Your task to perform on an android device: open sync settings in chrome Image 0: 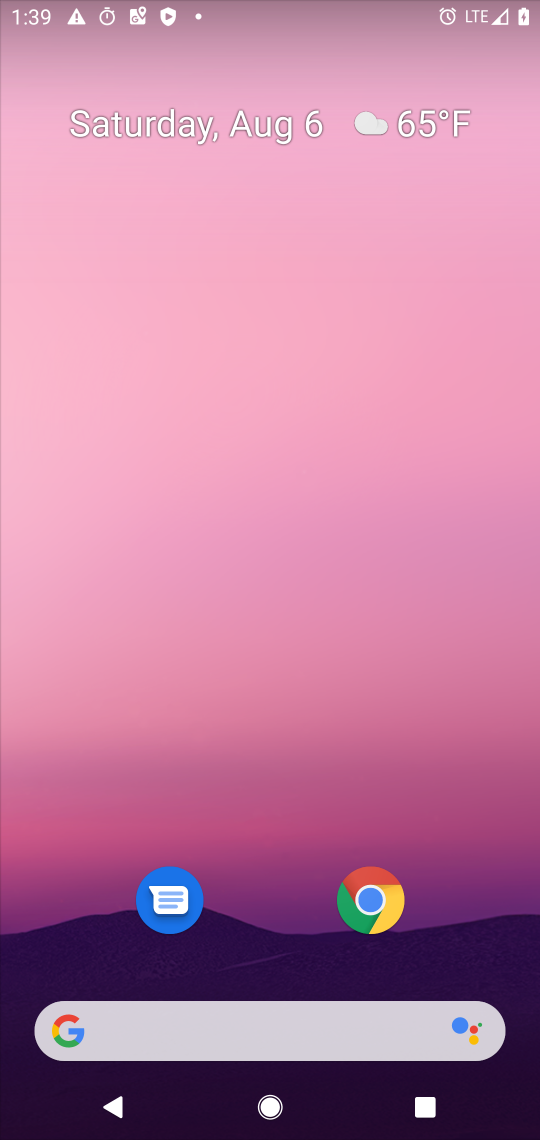
Step 0: click (372, 900)
Your task to perform on an android device: open sync settings in chrome Image 1: 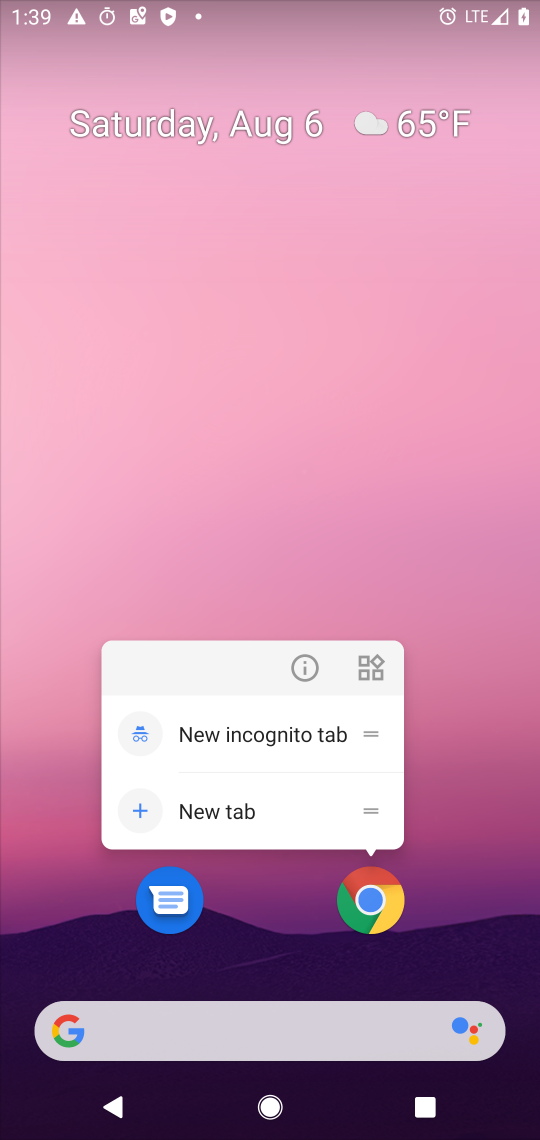
Step 1: click (370, 902)
Your task to perform on an android device: open sync settings in chrome Image 2: 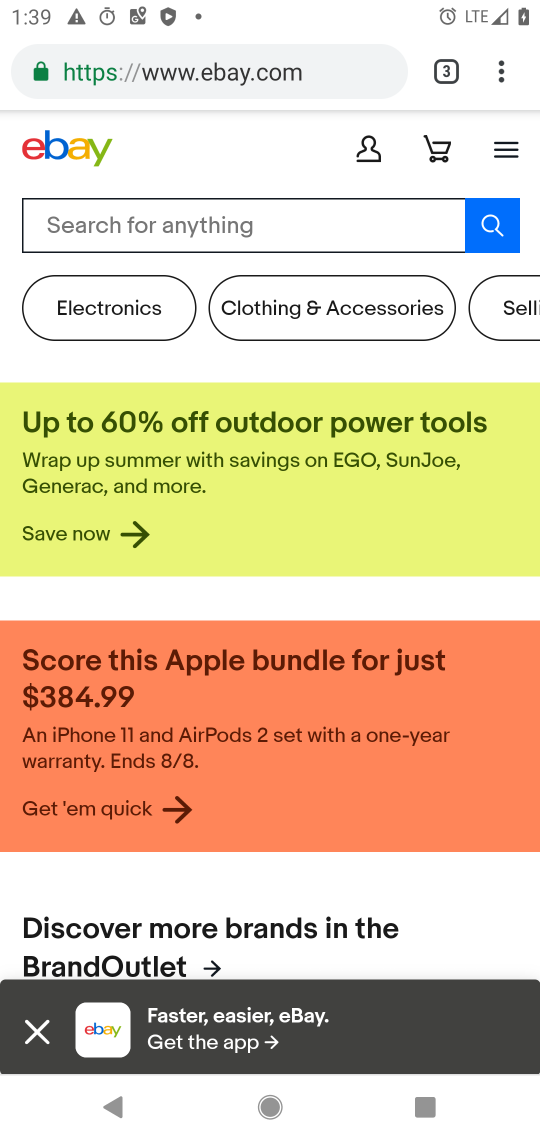
Step 2: click (497, 77)
Your task to perform on an android device: open sync settings in chrome Image 3: 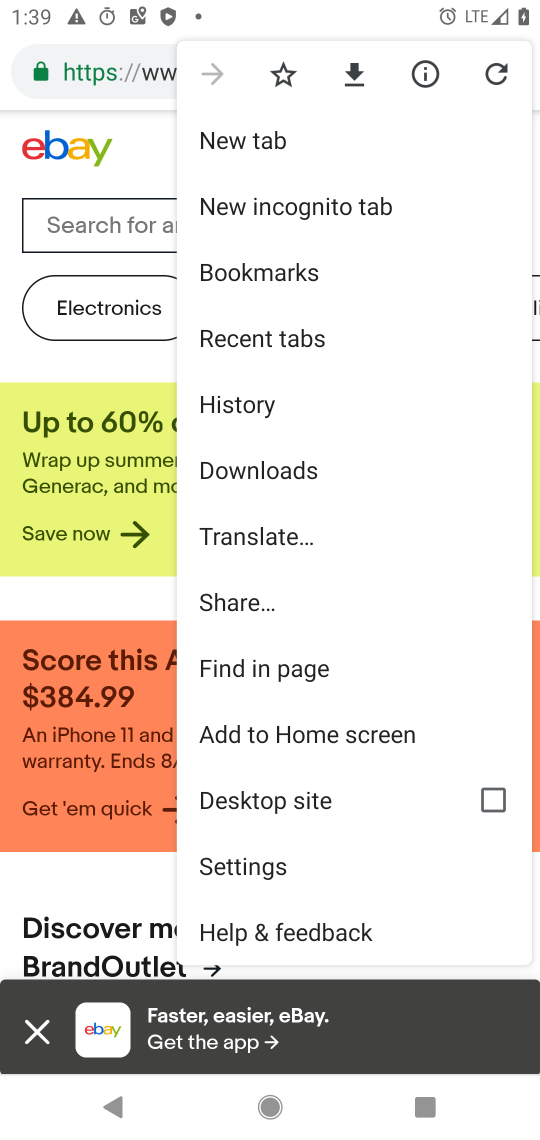
Step 3: click (252, 865)
Your task to perform on an android device: open sync settings in chrome Image 4: 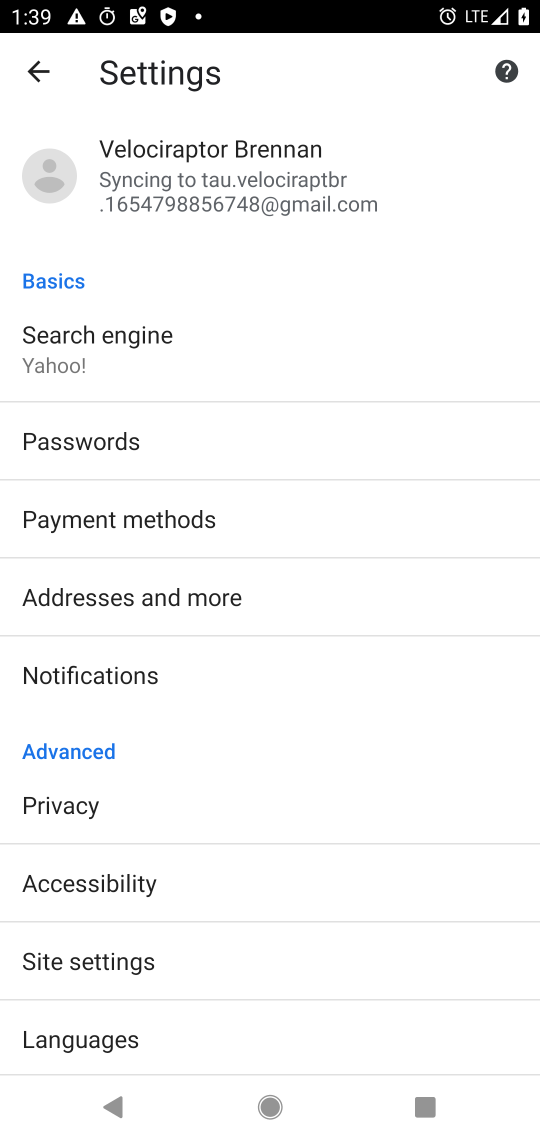
Step 4: click (81, 965)
Your task to perform on an android device: open sync settings in chrome Image 5: 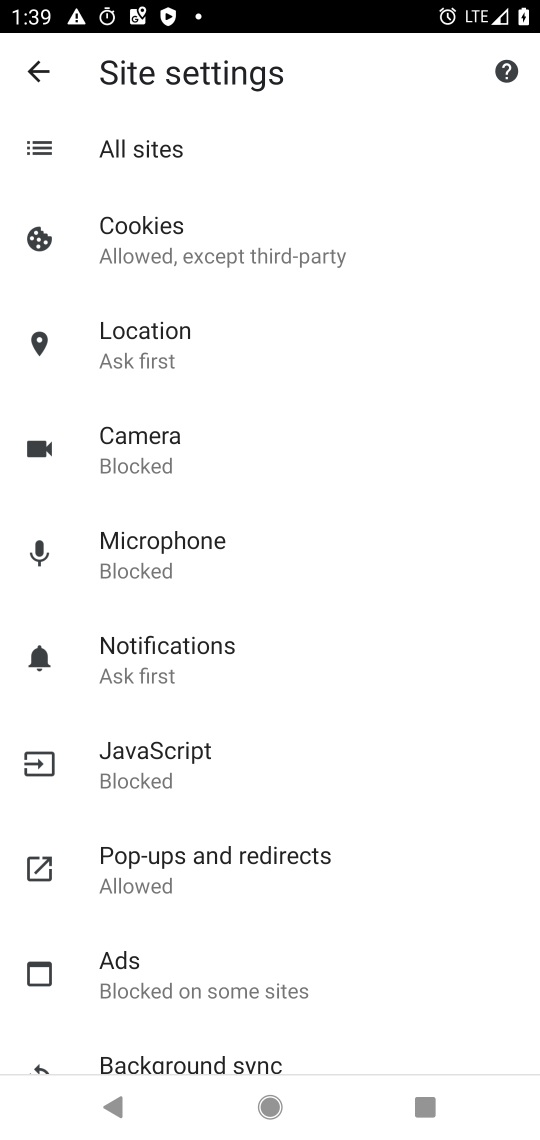
Step 5: click (196, 1057)
Your task to perform on an android device: open sync settings in chrome Image 6: 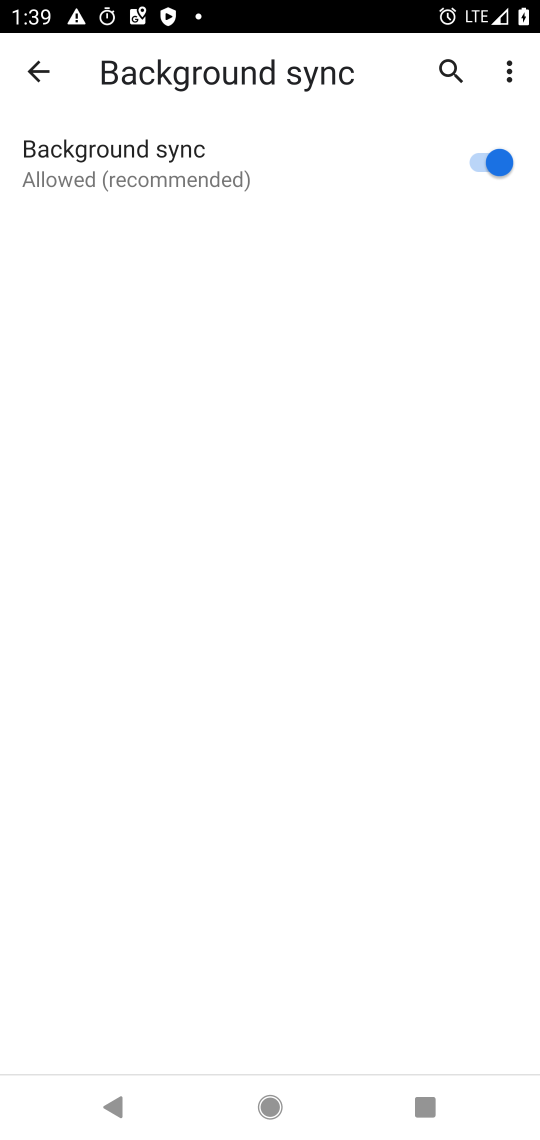
Step 6: click (476, 164)
Your task to perform on an android device: open sync settings in chrome Image 7: 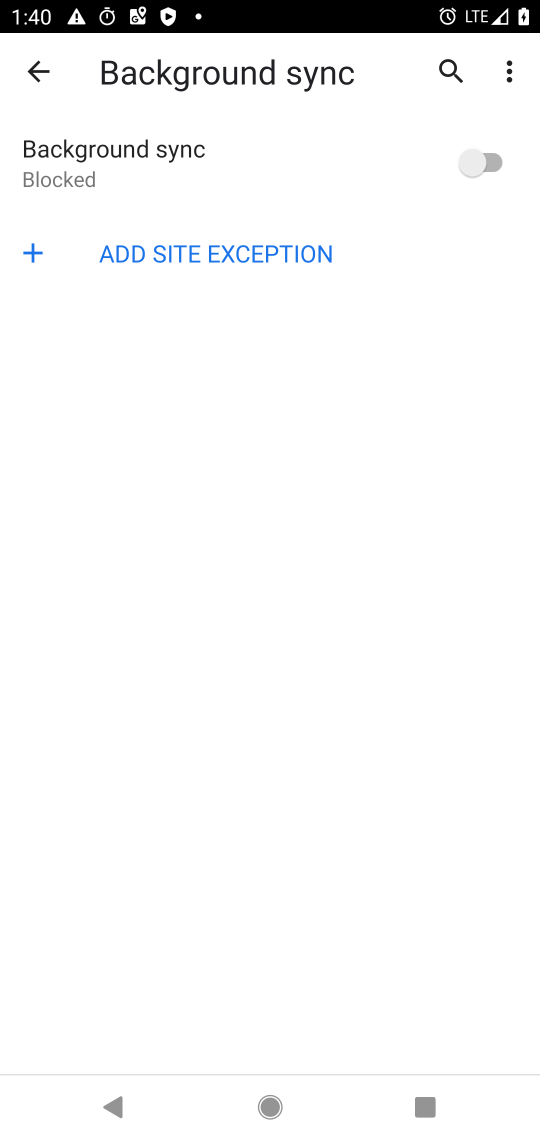
Step 7: click (498, 154)
Your task to perform on an android device: open sync settings in chrome Image 8: 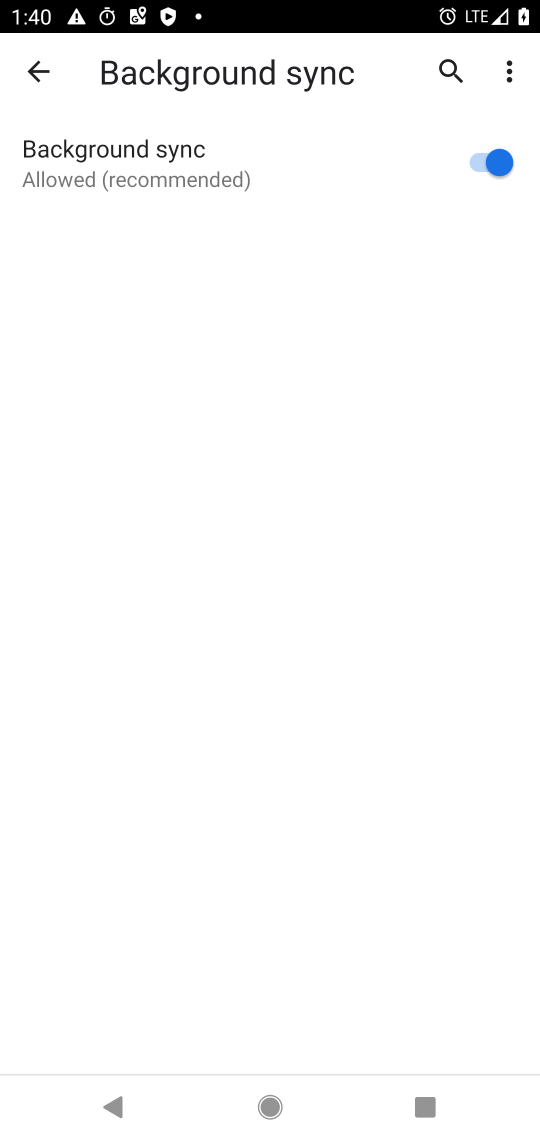
Step 8: task complete